Your task to perform on an android device: open chrome and create a bookmark for the current page Image 0: 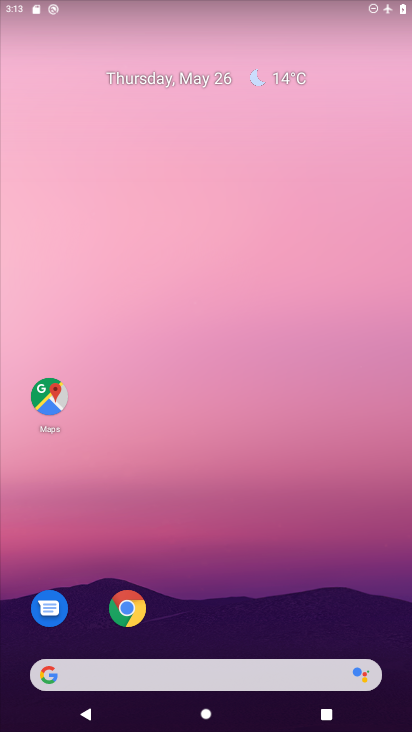
Step 0: drag from (234, 534) to (254, 13)
Your task to perform on an android device: open chrome and create a bookmark for the current page Image 1: 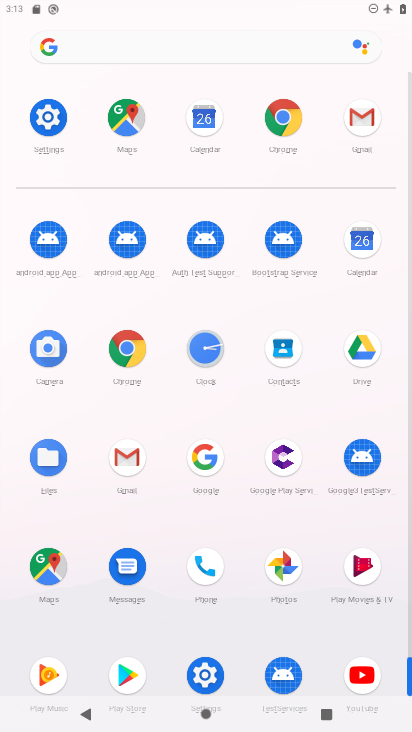
Step 1: click (278, 123)
Your task to perform on an android device: open chrome and create a bookmark for the current page Image 2: 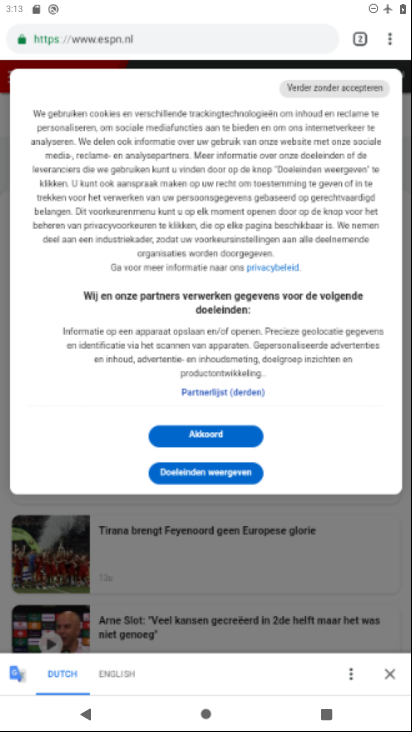
Step 2: task complete